Your task to perform on an android device: Open Wikipedia Image 0: 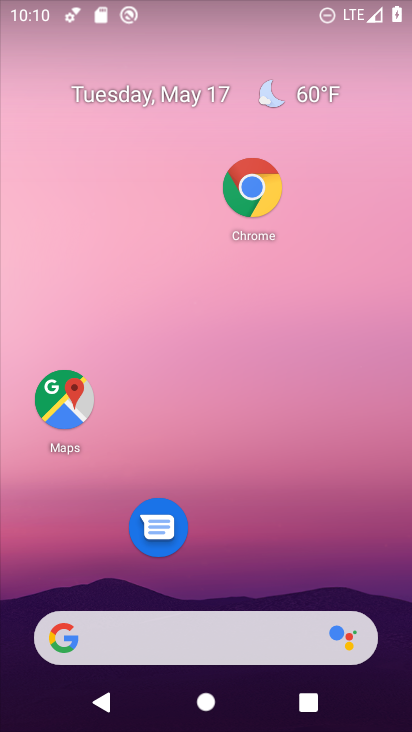
Step 0: drag from (372, 561) to (301, 125)
Your task to perform on an android device: Open Wikipedia Image 1: 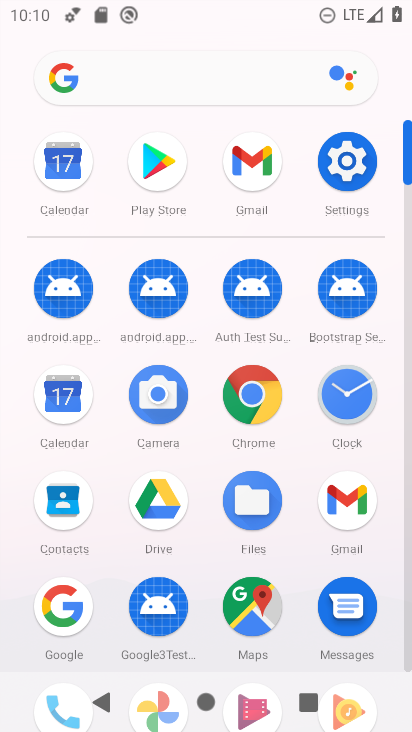
Step 1: click (360, 193)
Your task to perform on an android device: Open Wikipedia Image 2: 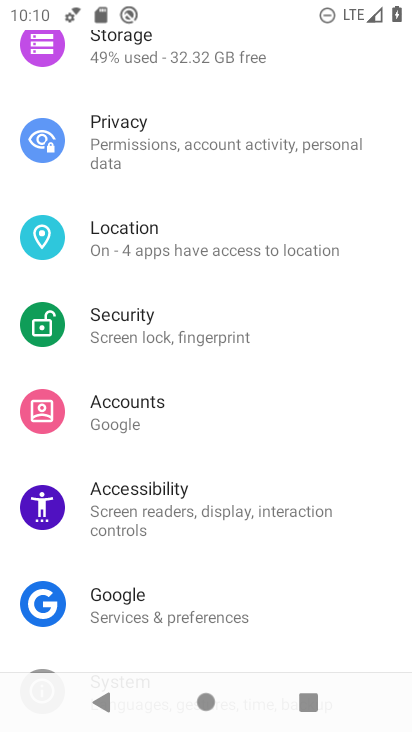
Step 2: press back button
Your task to perform on an android device: Open Wikipedia Image 3: 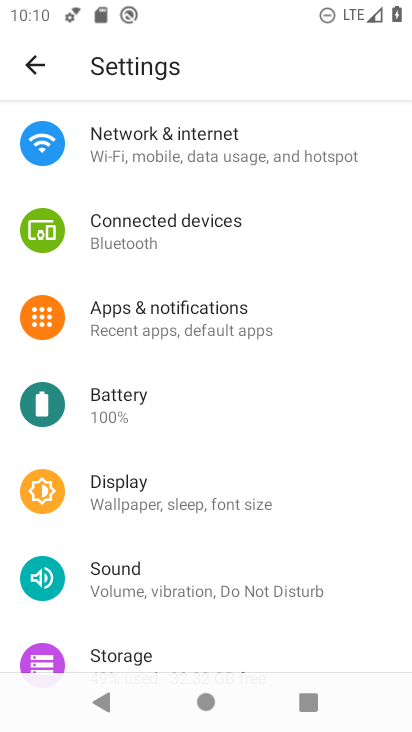
Step 3: press back button
Your task to perform on an android device: Open Wikipedia Image 4: 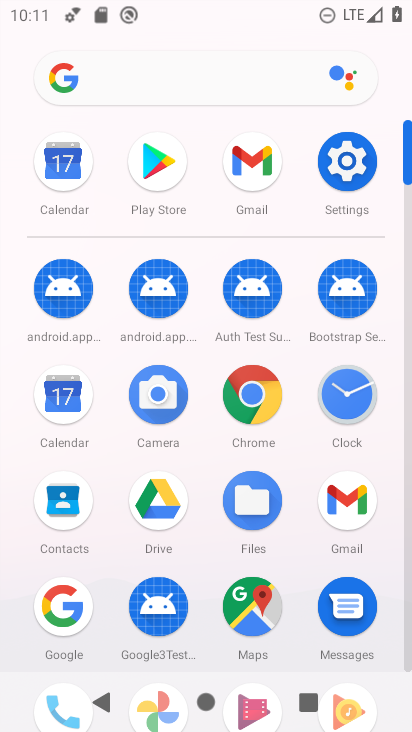
Step 4: click (258, 406)
Your task to perform on an android device: Open Wikipedia Image 5: 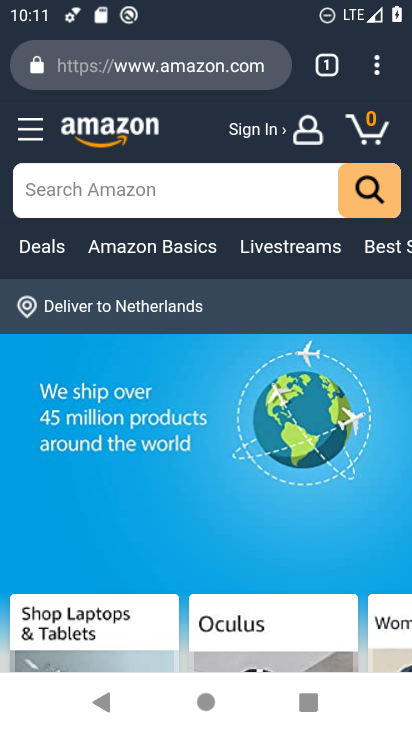
Step 5: click (190, 82)
Your task to perform on an android device: Open Wikipedia Image 6: 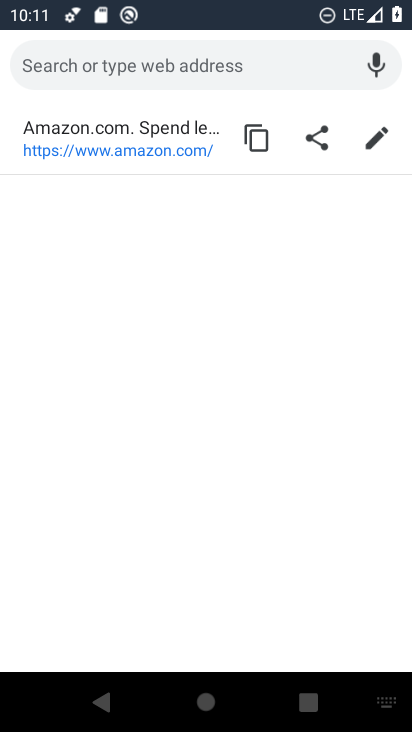
Step 6: type "wikipedia"
Your task to perform on an android device: Open Wikipedia Image 7: 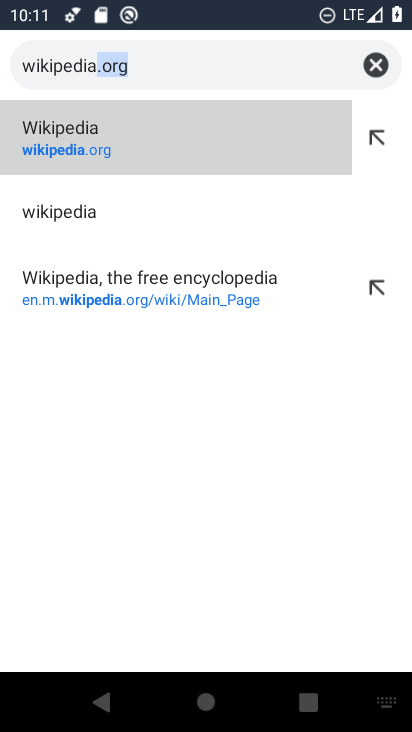
Step 7: click (181, 139)
Your task to perform on an android device: Open Wikipedia Image 8: 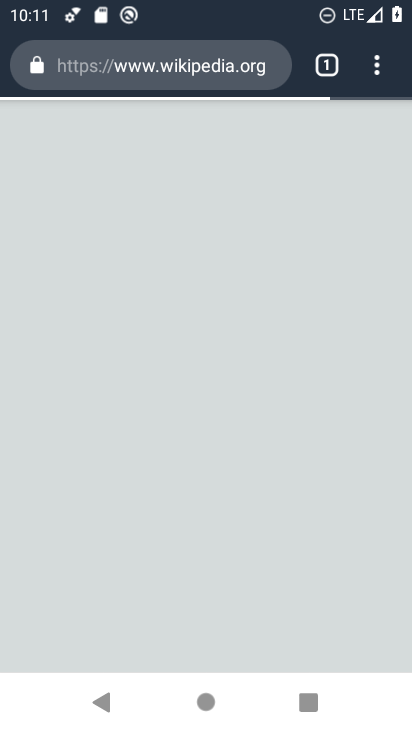
Step 8: task complete